Your task to perform on an android device: Open the calendar app, open the side menu, and click the "Day" option Image 0: 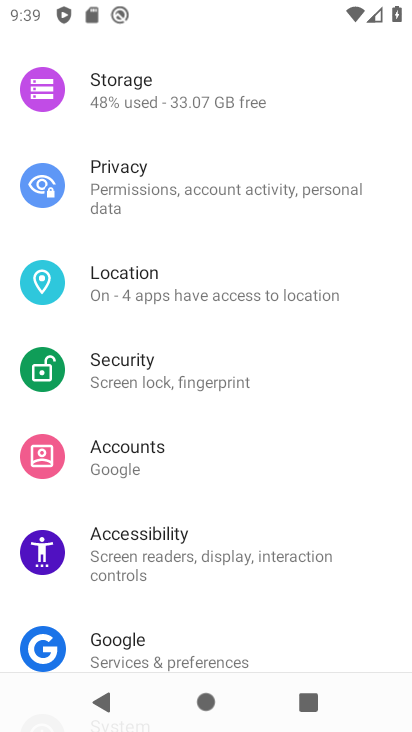
Step 0: press back button
Your task to perform on an android device: Open the calendar app, open the side menu, and click the "Day" option Image 1: 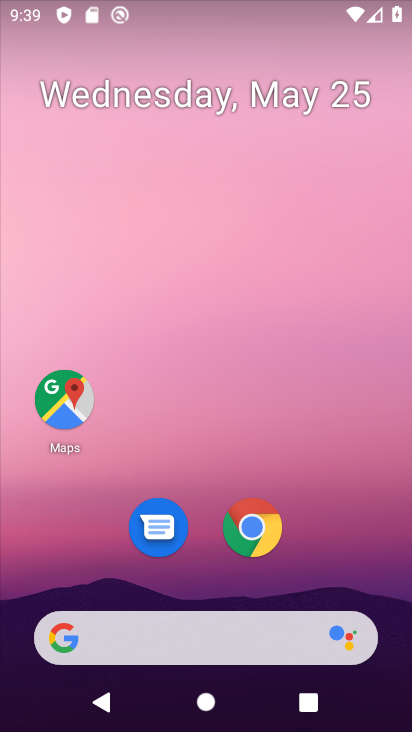
Step 1: drag from (321, 572) to (340, 188)
Your task to perform on an android device: Open the calendar app, open the side menu, and click the "Day" option Image 2: 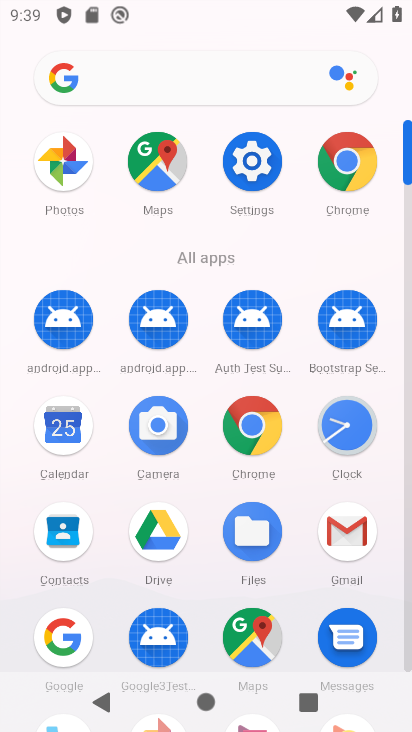
Step 2: click (65, 427)
Your task to perform on an android device: Open the calendar app, open the side menu, and click the "Day" option Image 3: 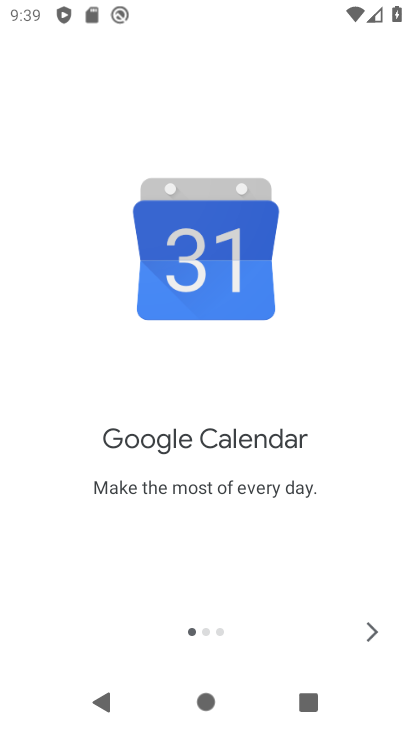
Step 3: click (372, 627)
Your task to perform on an android device: Open the calendar app, open the side menu, and click the "Day" option Image 4: 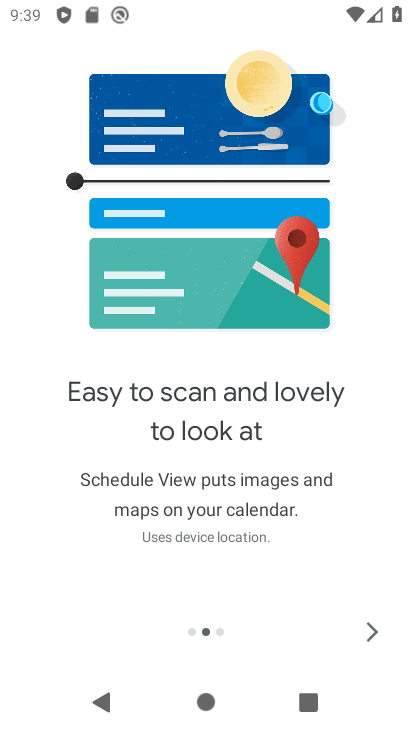
Step 4: click (372, 627)
Your task to perform on an android device: Open the calendar app, open the side menu, and click the "Day" option Image 5: 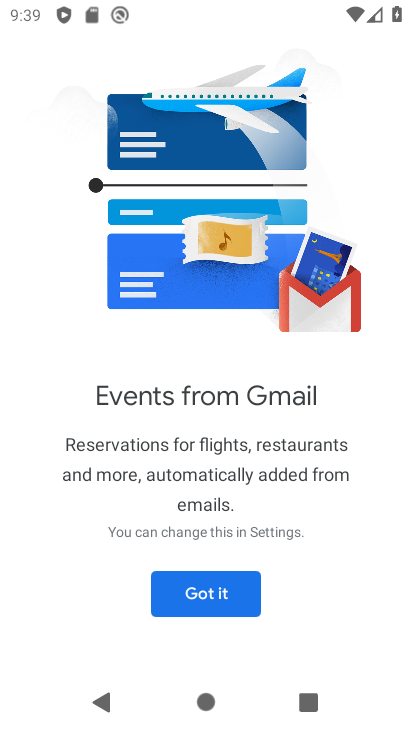
Step 5: click (214, 596)
Your task to perform on an android device: Open the calendar app, open the side menu, and click the "Day" option Image 6: 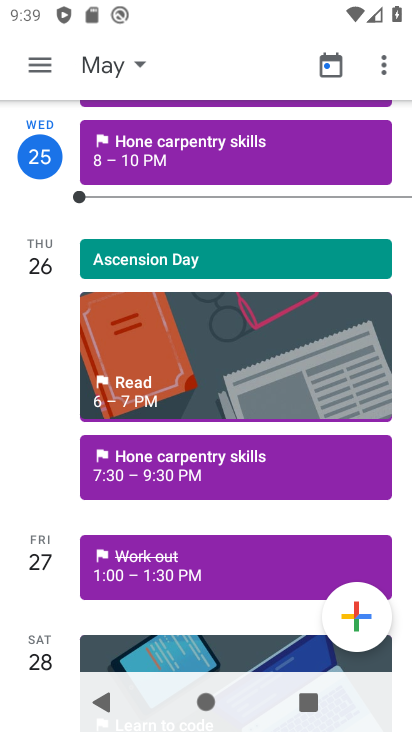
Step 6: click (38, 64)
Your task to perform on an android device: Open the calendar app, open the side menu, and click the "Day" option Image 7: 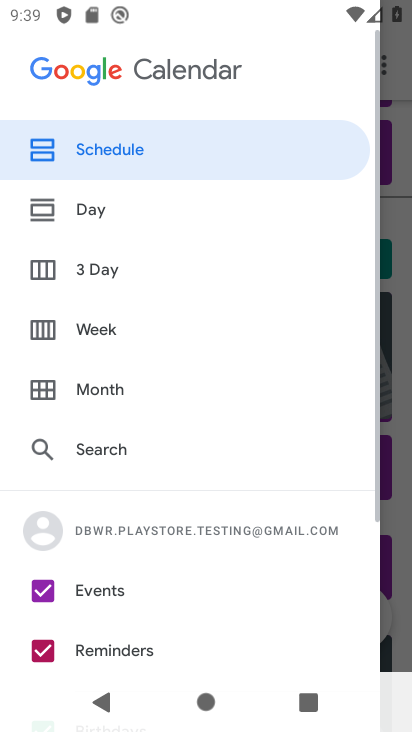
Step 7: click (92, 213)
Your task to perform on an android device: Open the calendar app, open the side menu, and click the "Day" option Image 8: 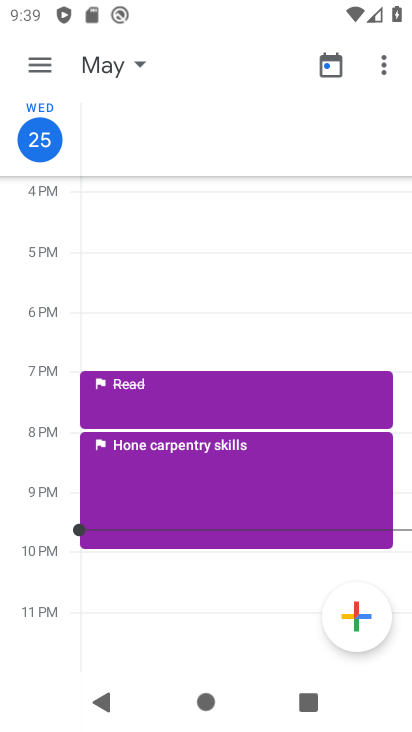
Step 8: task complete